Your task to perform on an android device: Go to Amazon Image 0: 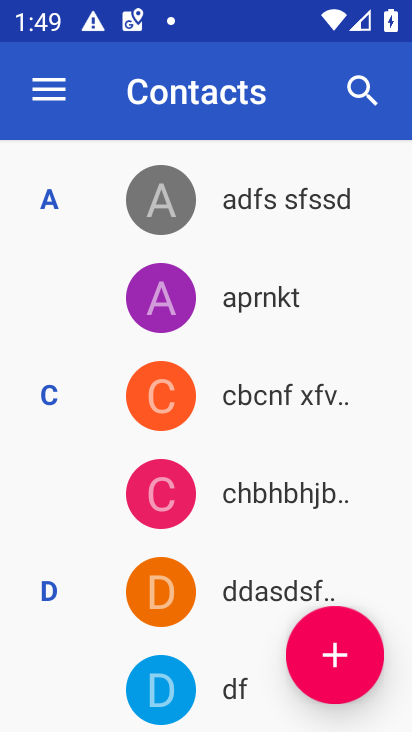
Step 0: press home button
Your task to perform on an android device: Go to Amazon Image 1: 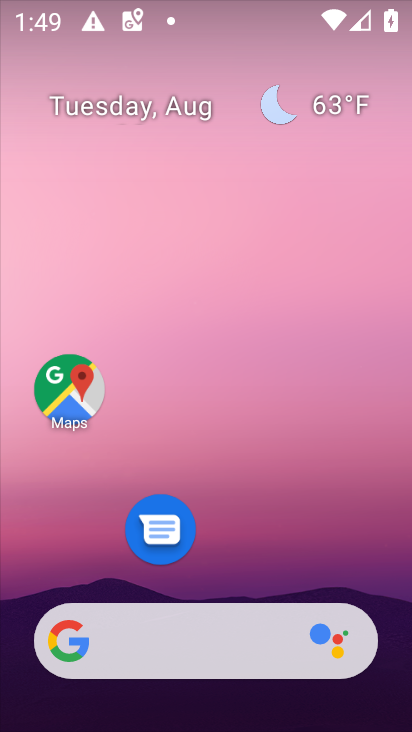
Step 1: drag from (230, 598) to (258, 69)
Your task to perform on an android device: Go to Amazon Image 2: 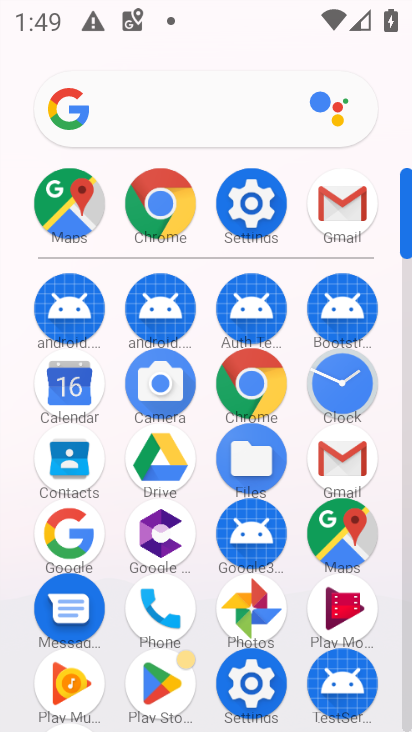
Step 2: click (269, 386)
Your task to perform on an android device: Go to Amazon Image 3: 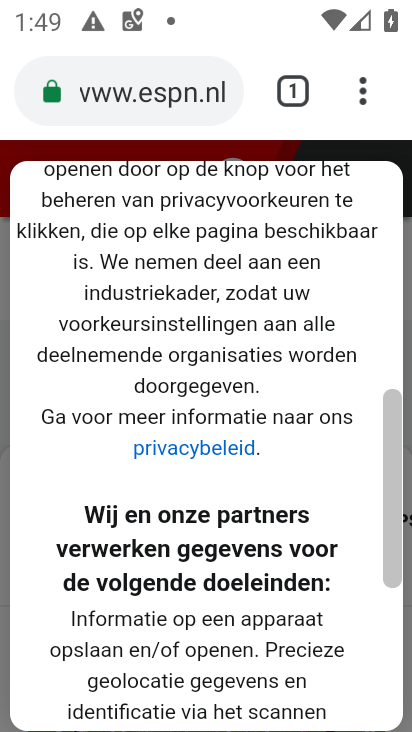
Step 3: click (185, 82)
Your task to perform on an android device: Go to Amazon Image 4: 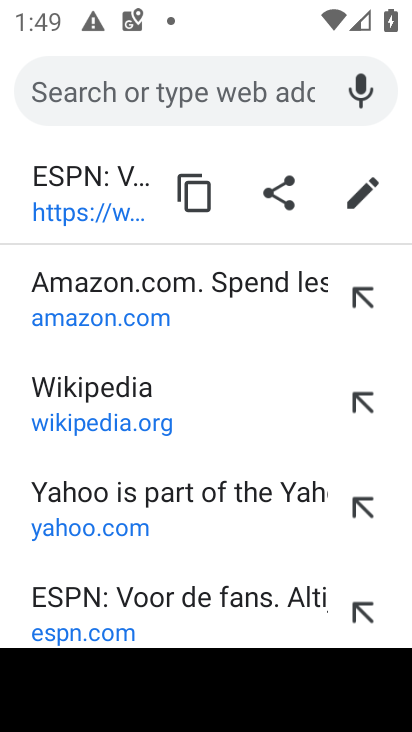
Step 4: click (198, 266)
Your task to perform on an android device: Go to Amazon Image 5: 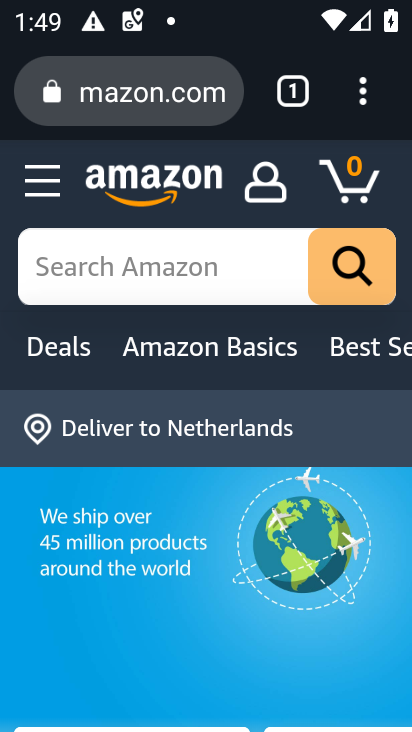
Step 5: task complete